Your task to perform on an android device: Open network settings Image 0: 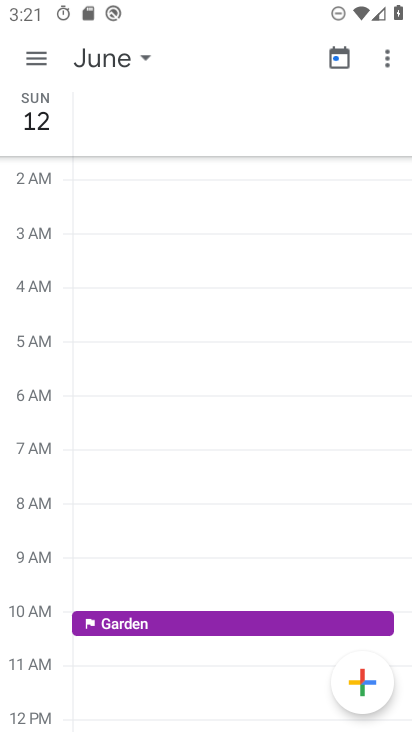
Step 0: press home button
Your task to perform on an android device: Open network settings Image 1: 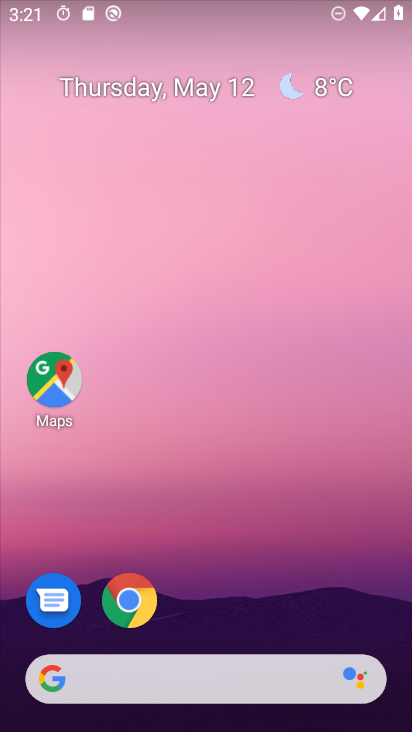
Step 1: drag from (198, 716) to (221, 278)
Your task to perform on an android device: Open network settings Image 2: 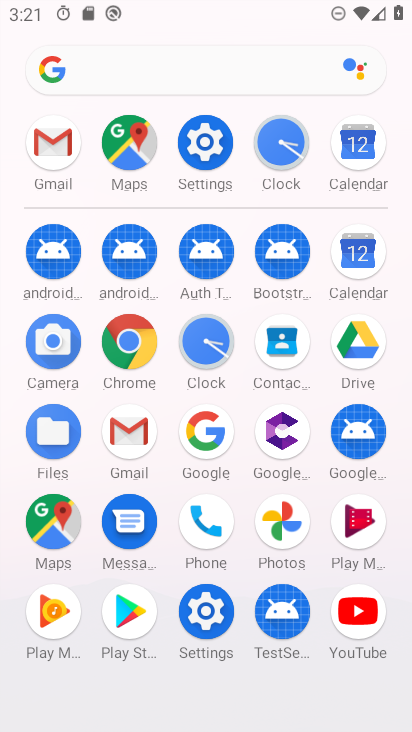
Step 2: click (208, 145)
Your task to perform on an android device: Open network settings Image 3: 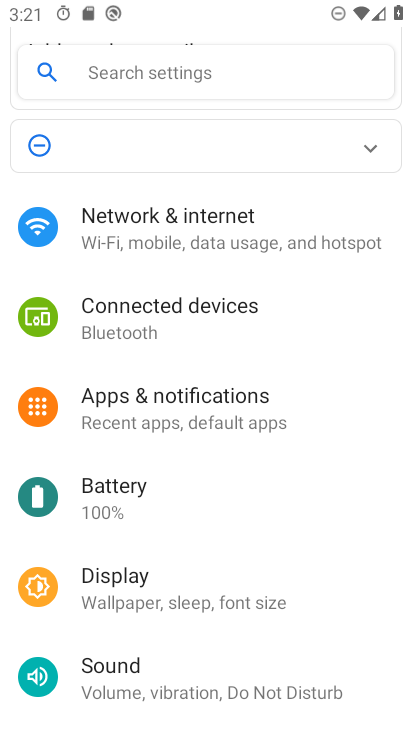
Step 3: click (135, 225)
Your task to perform on an android device: Open network settings Image 4: 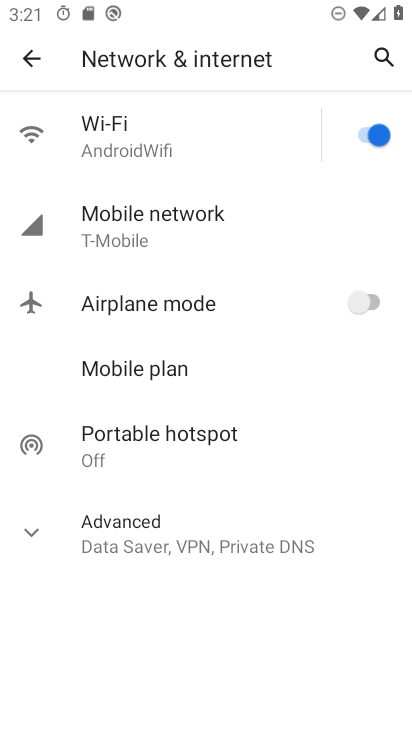
Step 4: task complete